Your task to perform on an android device: Open eBay Image 0: 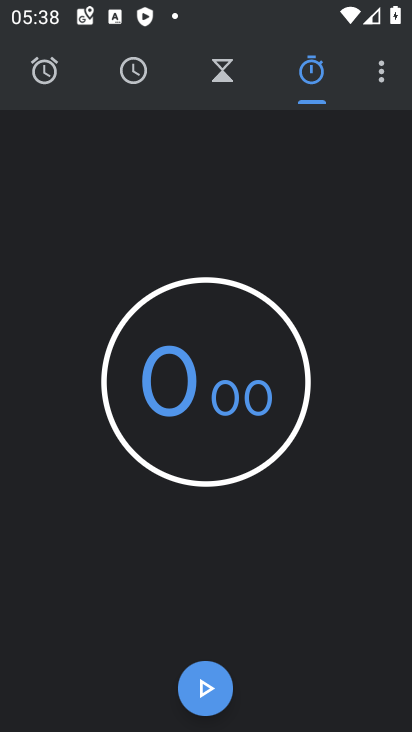
Step 0: press home button
Your task to perform on an android device: Open eBay Image 1: 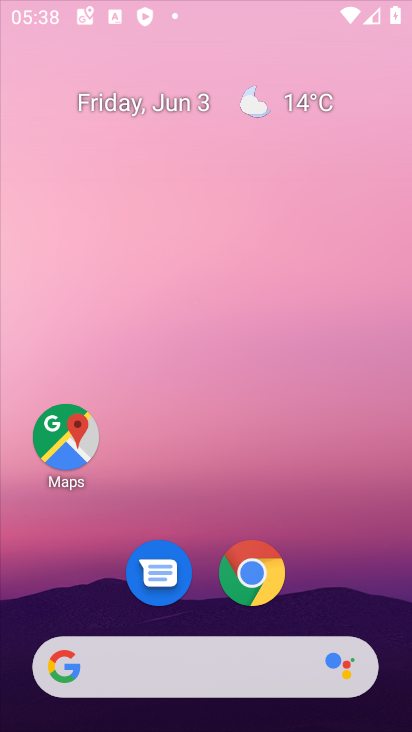
Step 1: drag from (226, 628) to (331, 33)
Your task to perform on an android device: Open eBay Image 2: 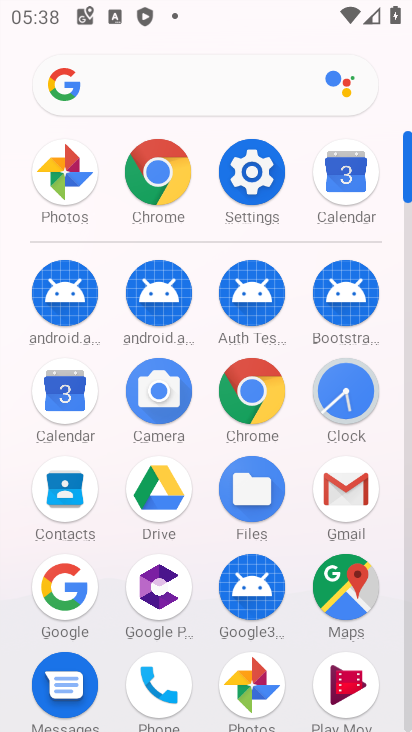
Step 2: click (265, 398)
Your task to perform on an android device: Open eBay Image 3: 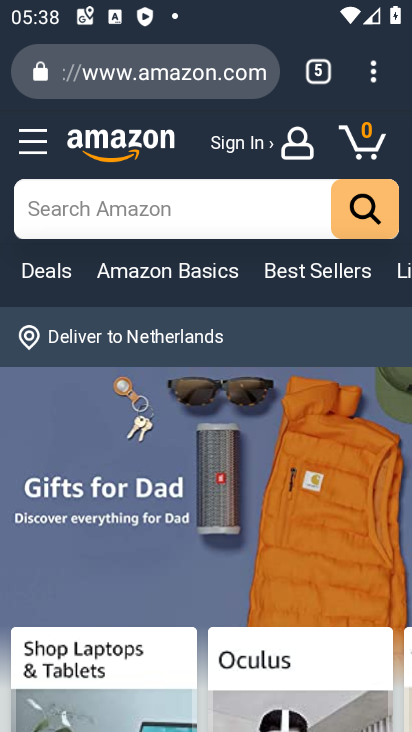
Step 3: click (226, 64)
Your task to perform on an android device: Open eBay Image 4: 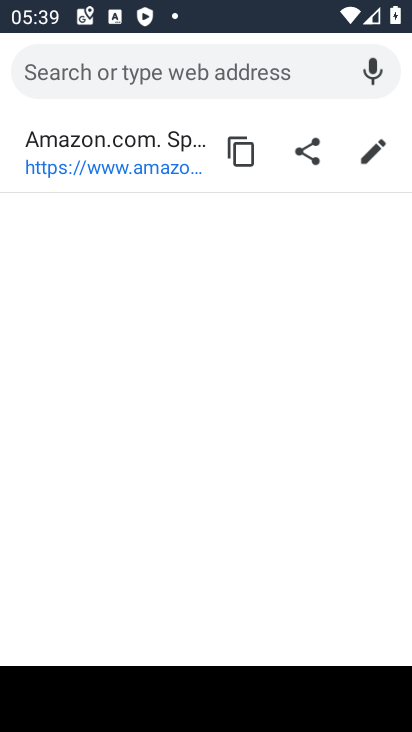
Step 4: type "ebay"
Your task to perform on an android device: Open eBay Image 5: 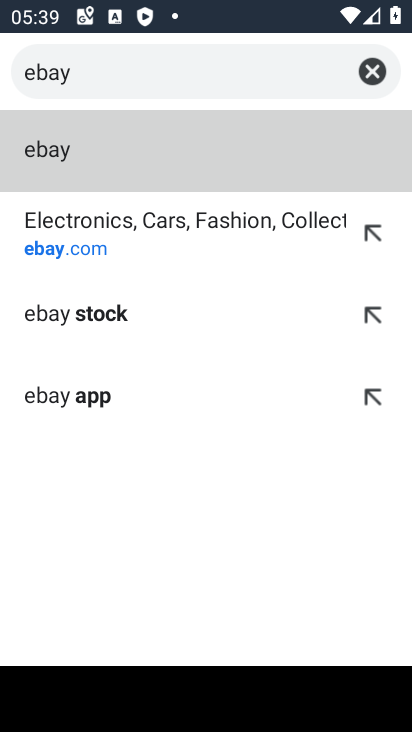
Step 5: click (124, 226)
Your task to perform on an android device: Open eBay Image 6: 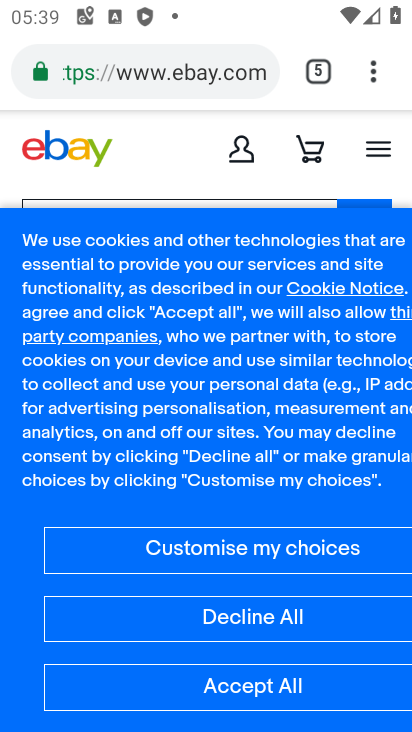
Step 6: task complete